Your task to perform on an android device: refresh tabs in the chrome app Image 0: 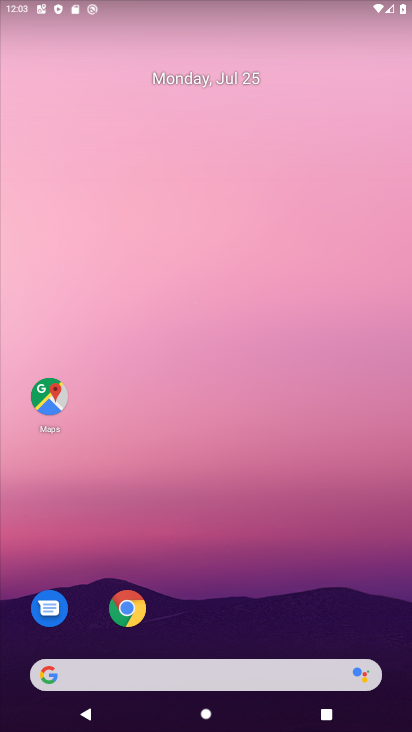
Step 0: click (125, 612)
Your task to perform on an android device: refresh tabs in the chrome app Image 1: 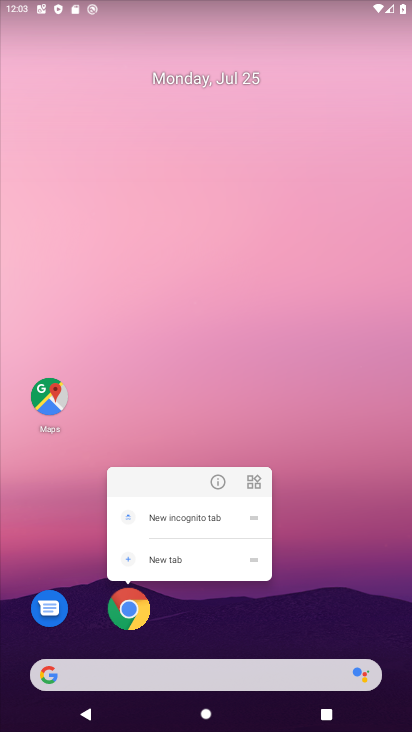
Step 1: click (125, 612)
Your task to perform on an android device: refresh tabs in the chrome app Image 2: 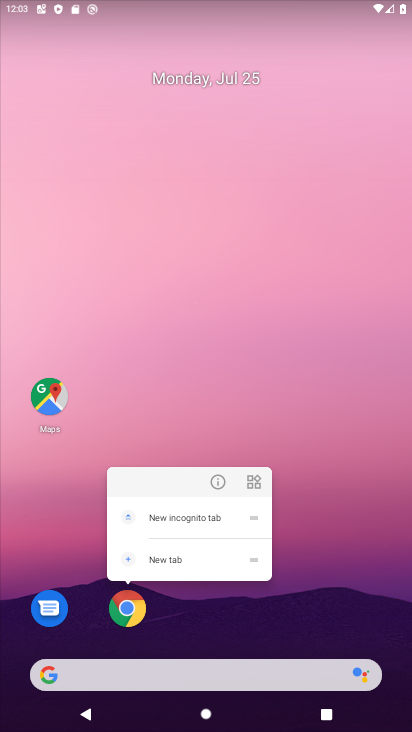
Step 2: click (125, 612)
Your task to perform on an android device: refresh tabs in the chrome app Image 3: 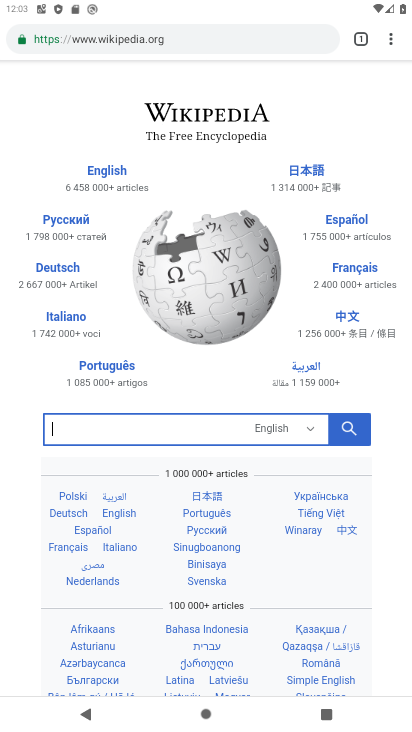
Step 3: click (388, 40)
Your task to perform on an android device: refresh tabs in the chrome app Image 4: 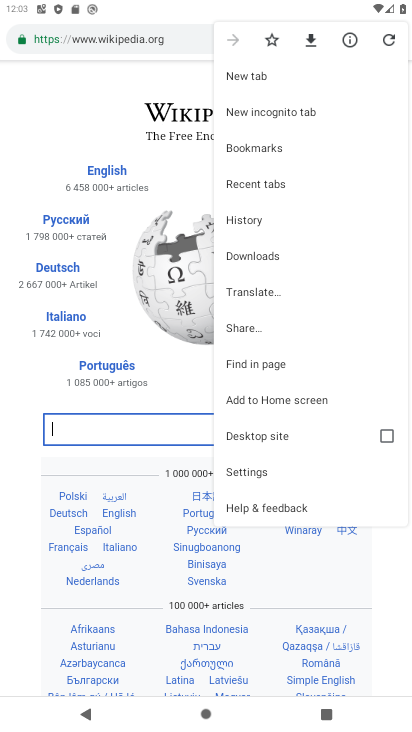
Step 4: click (388, 40)
Your task to perform on an android device: refresh tabs in the chrome app Image 5: 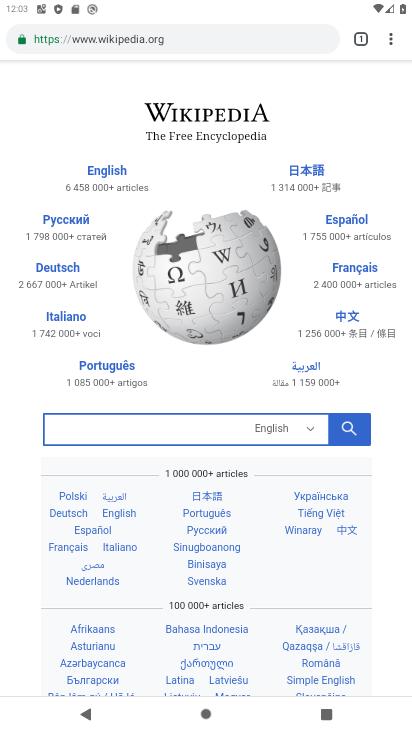
Step 5: task complete